Your task to perform on an android device: Open Google Maps Image 0: 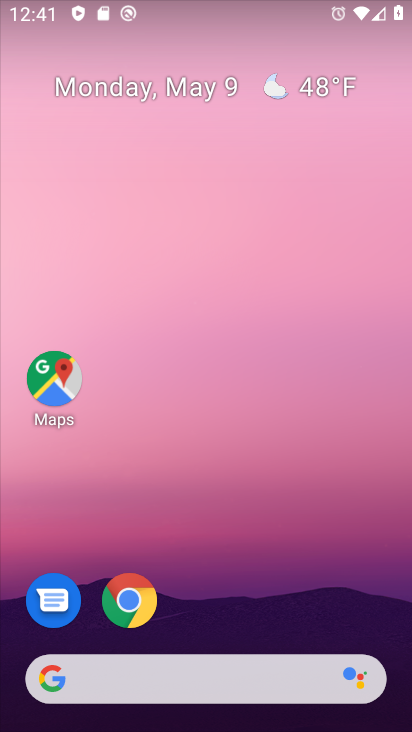
Step 0: click (57, 380)
Your task to perform on an android device: Open Google Maps Image 1: 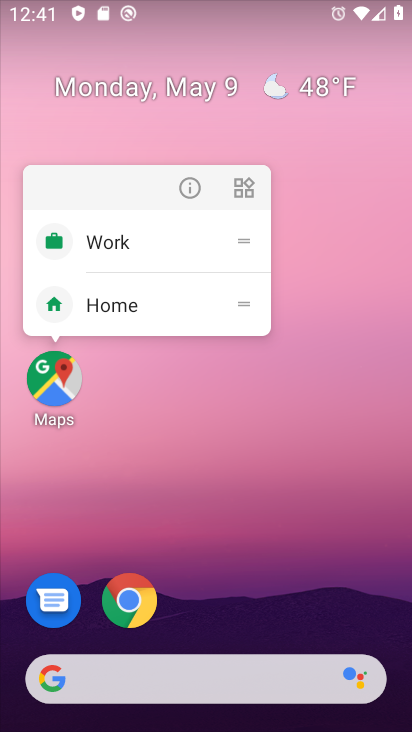
Step 1: click (56, 379)
Your task to perform on an android device: Open Google Maps Image 2: 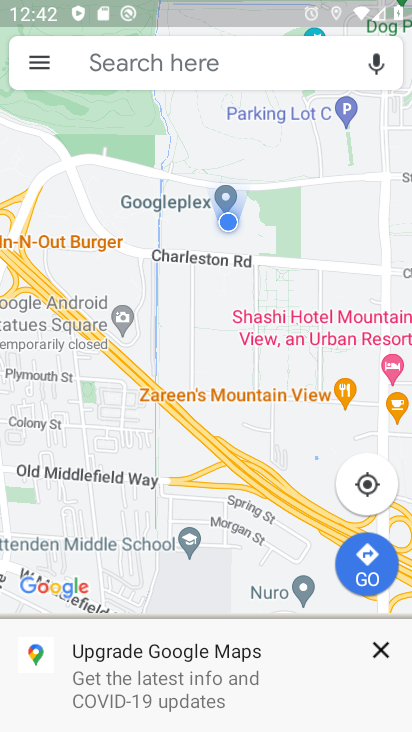
Step 2: task complete